Your task to perform on an android device: turn on translation in the chrome app Image 0: 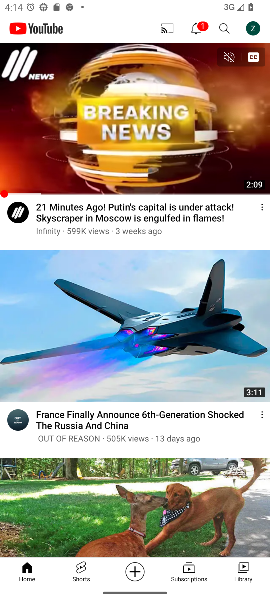
Step 0: press home button
Your task to perform on an android device: turn on translation in the chrome app Image 1: 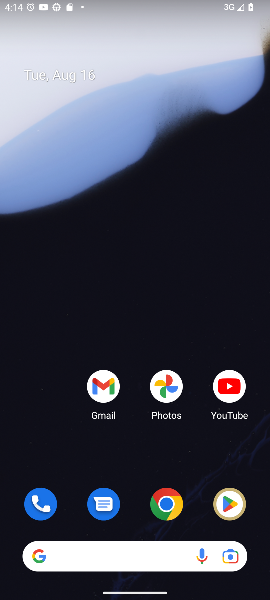
Step 1: click (170, 502)
Your task to perform on an android device: turn on translation in the chrome app Image 2: 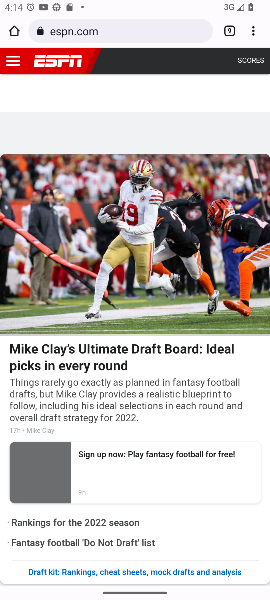
Step 2: click (249, 29)
Your task to perform on an android device: turn on translation in the chrome app Image 3: 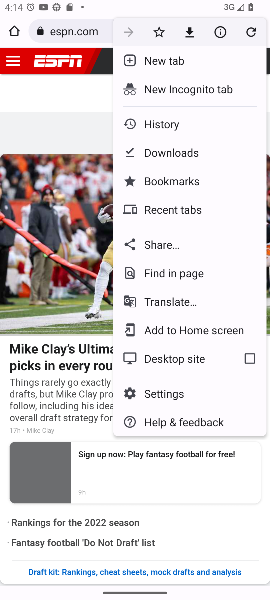
Step 3: click (165, 387)
Your task to perform on an android device: turn on translation in the chrome app Image 4: 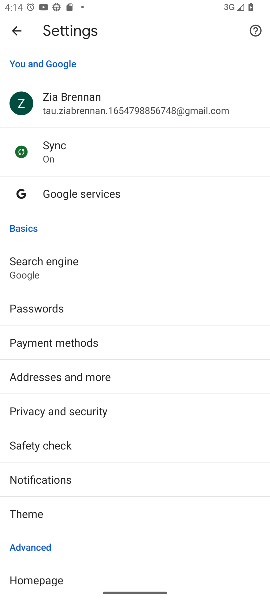
Step 4: drag from (138, 490) to (129, 338)
Your task to perform on an android device: turn on translation in the chrome app Image 5: 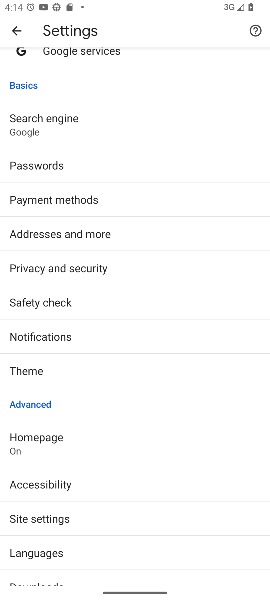
Step 5: click (41, 553)
Your task to perform on an android device: turn on translation in the chrome app Image 6: 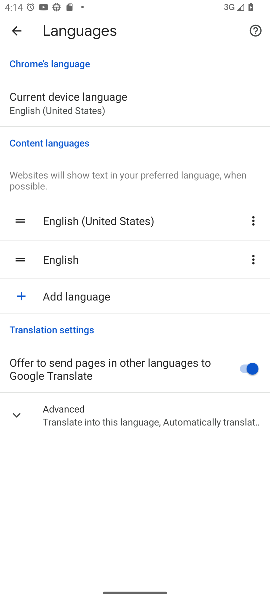
Step 6: task complete